Your task to perform on an android device: change alarm snooze length Image 0: 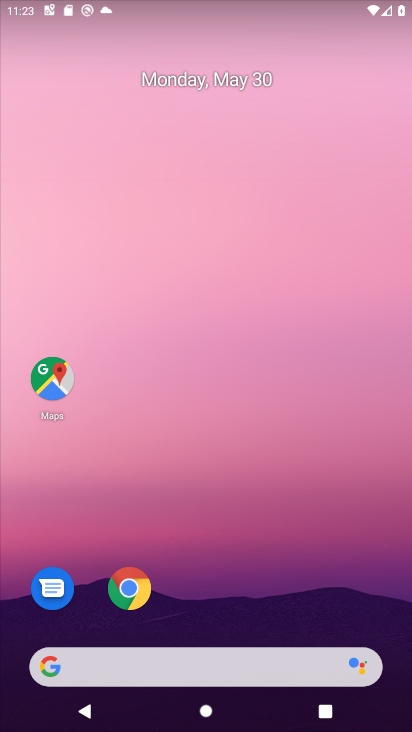
Step 0: drag from (284, 670) to (357, 118)
Your task to perform on an android device: change alarm snooze length Image 1: 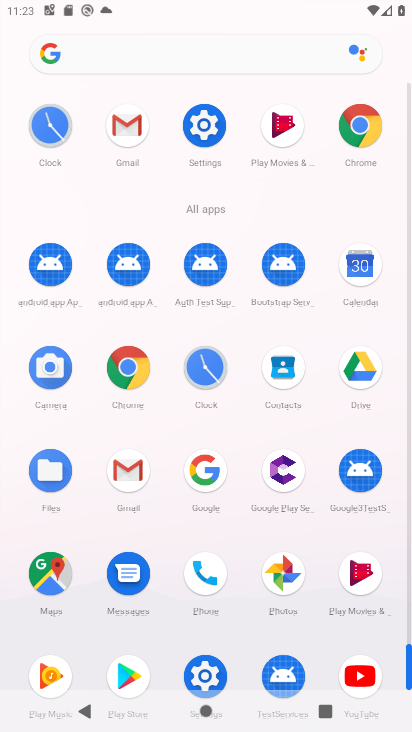
Step 1: click (213, 374)
Your task to perform on an android device: change alarm snooze length Image 2: 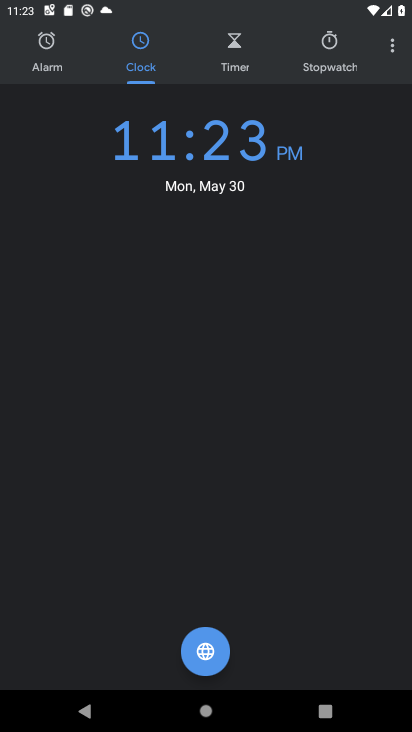
Step 2: click (397, 36)
Your task to perform on an android device: change alarm snooze length Image 3: 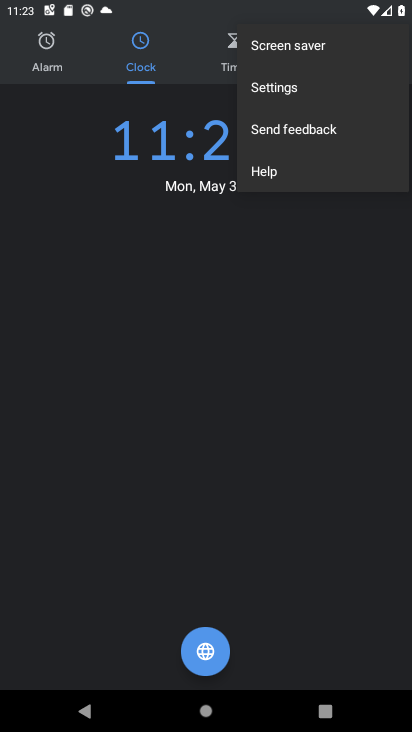
Step 3: click (293, 94)
Your task to perform on an android device: change alarm snooze length Image 4: 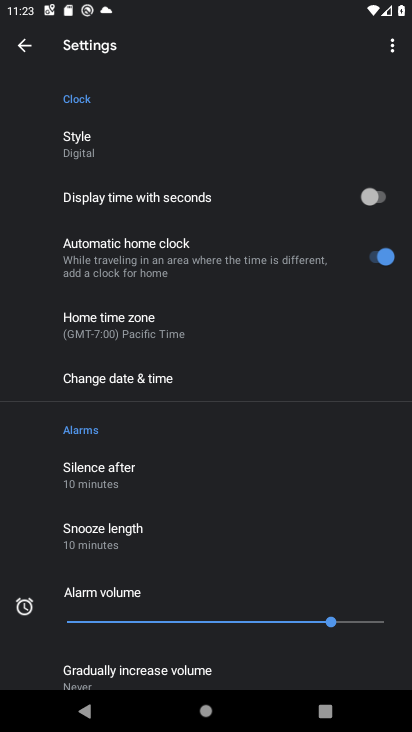
Step 4: click (131, 532)
Your task to perform on an android device: change alarm snooze length Image 5: 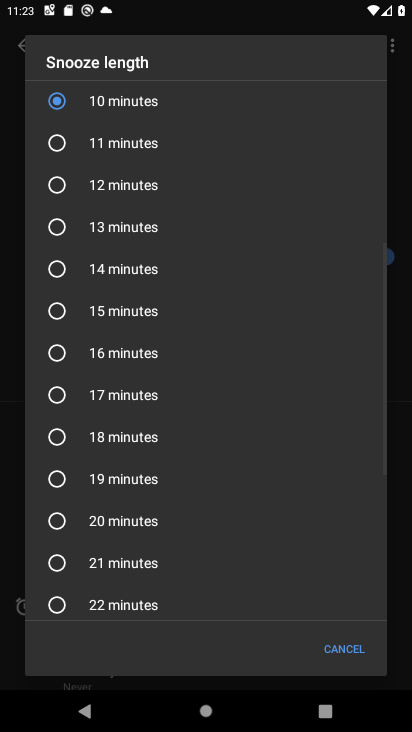
Step 5: click (113, 148)
Your task to perform on an android device: change alarm snooze length Image 6: 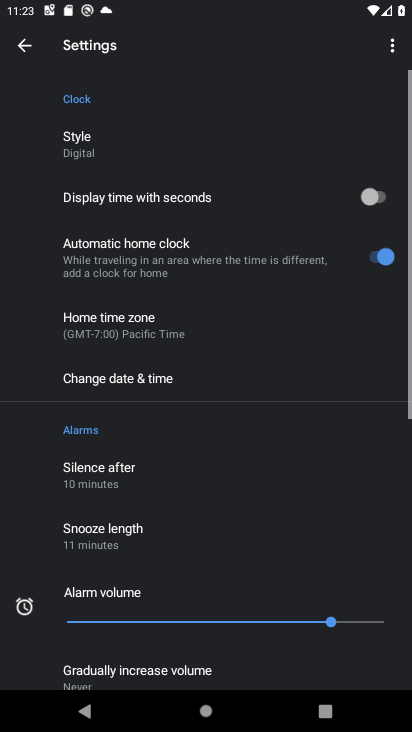
Step 6: task complete